Your task to perform on an android device: Open Android settings Image 0: 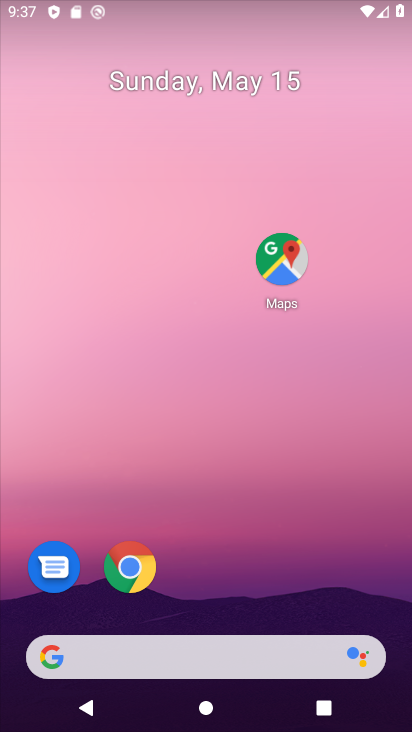
Step 0: drag from (222, 575) to (246, 67)
Your task to perform on an android device: Open Android settings Image 1: 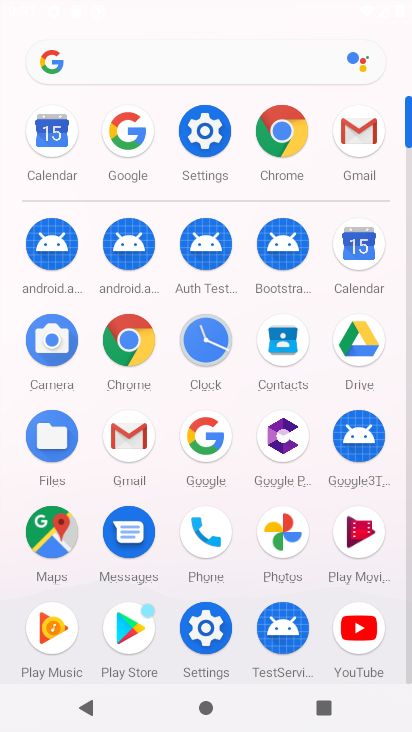
Step 1: click (207, 132)
Your task to perform on an android device: Open Android settings Image 2: 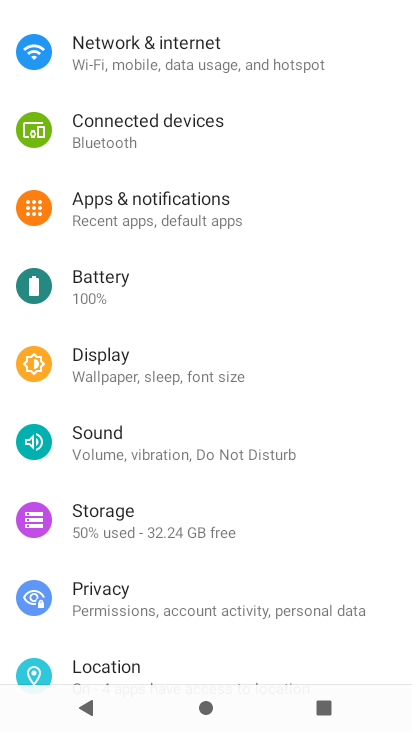
Step 2: task complete